Your task to perform on an android device: open app "Reddit" (install if not already installed) Image 0: 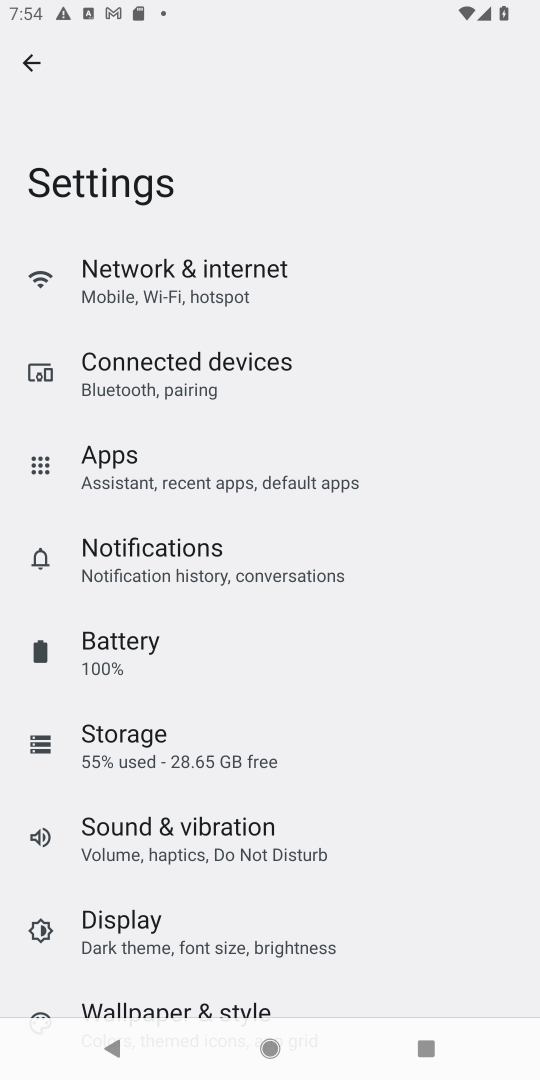
Step 0: press home button
Your task to perform on an android device: open app "Reddit" (install if not already installed) Image 1: 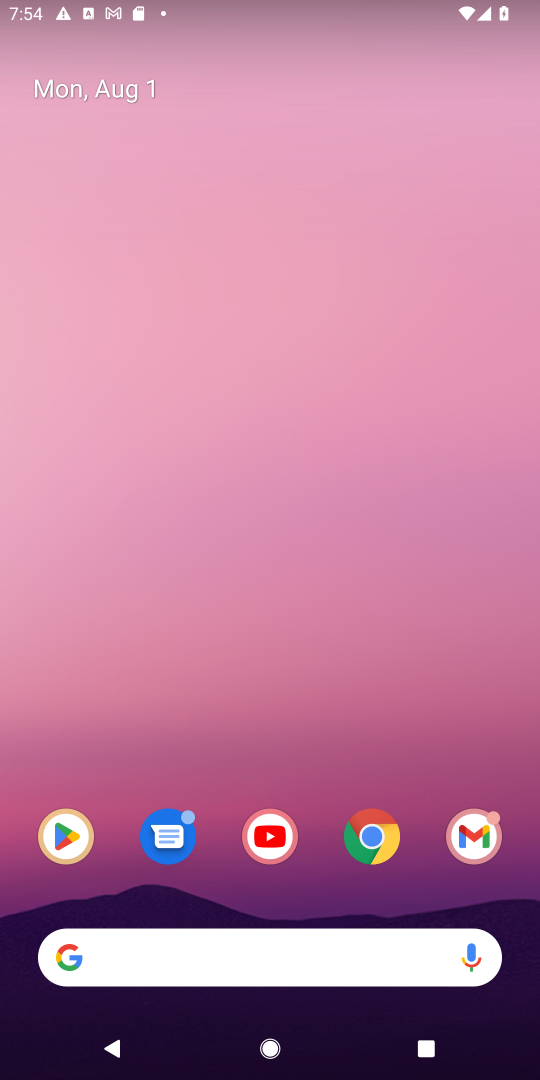
Step 1: click (66, 833)
Your task to perform on an android device: open app "Reddit" (install if not already installed) Image 2: 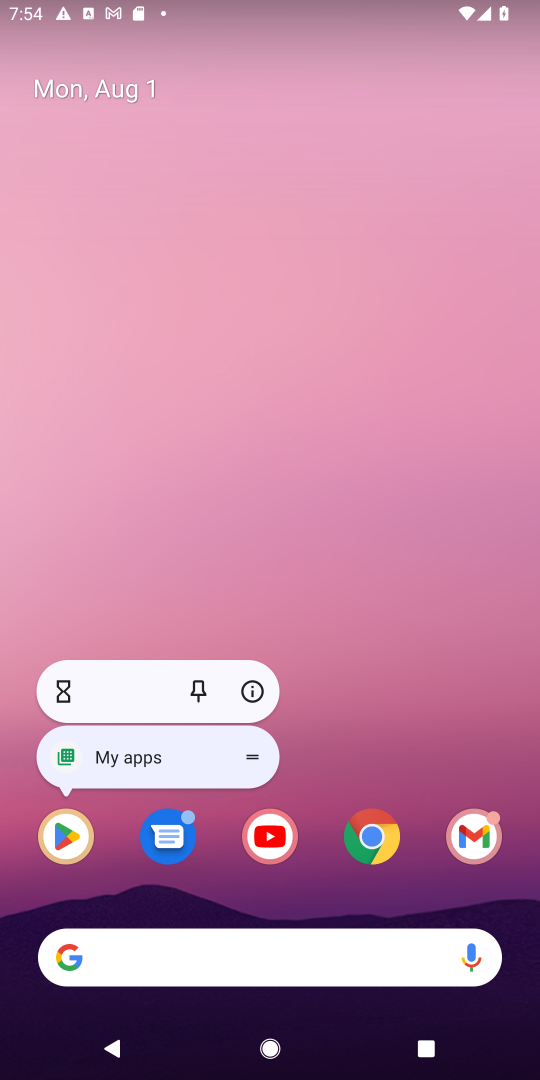
Step 2: click (66, 836)
Your task to perform on an android device: open app "Reddit" (install if not already installed) Image 3: 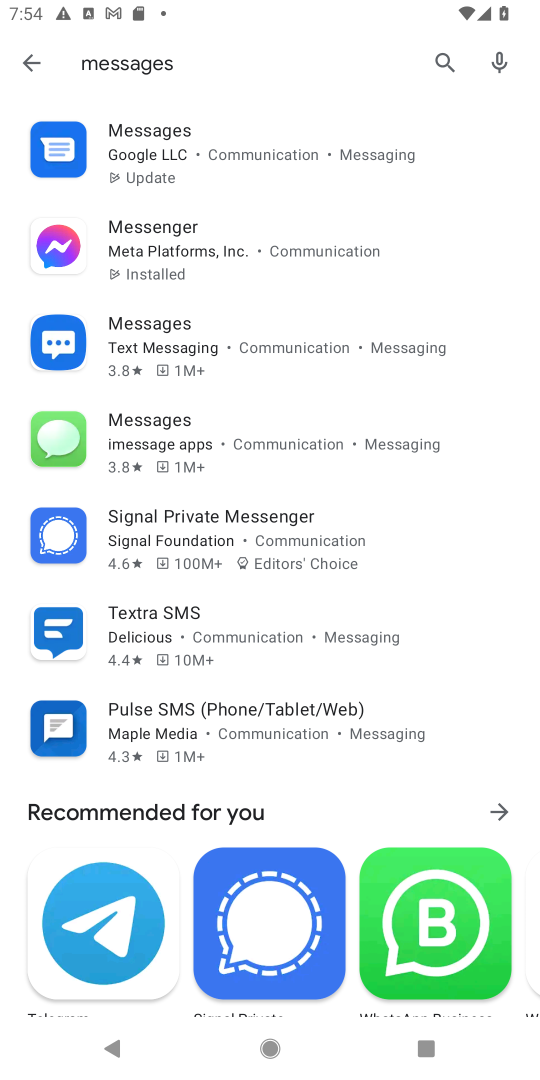
Step 3: click (435, 53)
Your task to perform on an android device: open app "Reddit" (install if not already installed) Image 4: 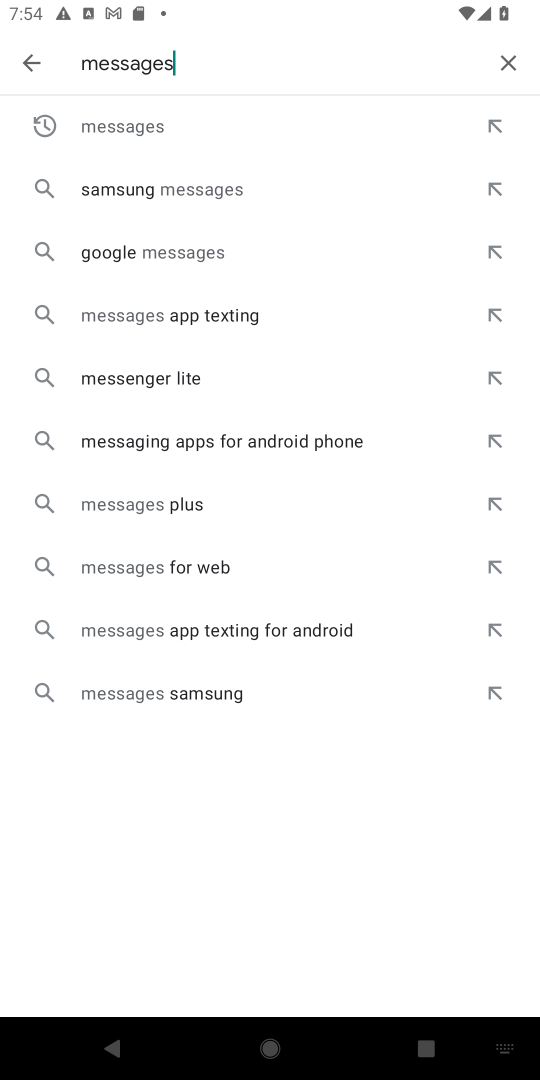
Step 4: click (506, 54)
Your task to perform on an android device: open app "Reddit" (install if not already installed) Image 5: 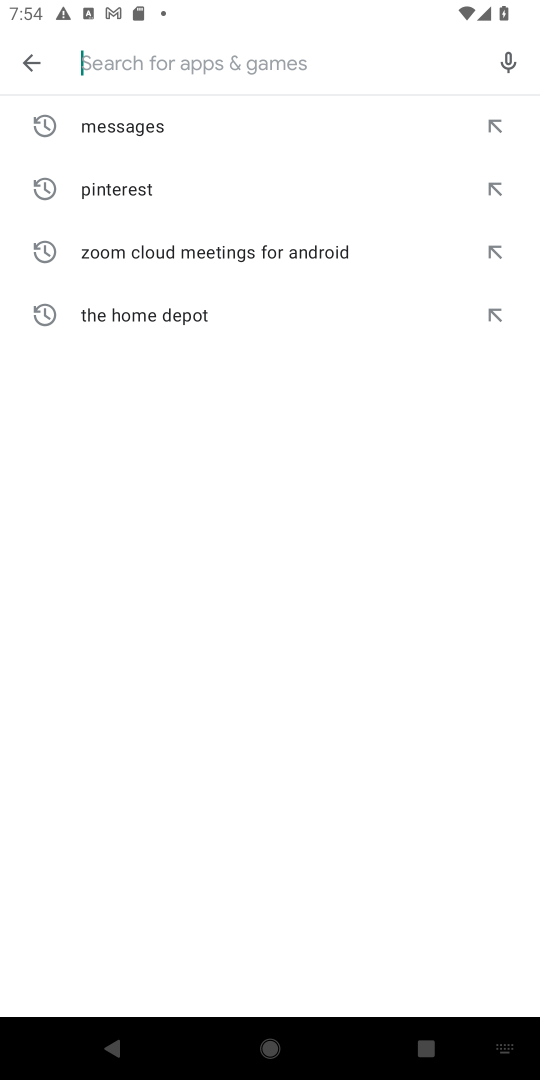
Step 5: type "Reddit"
Your task to perform on an android device: open app "Reddit" (install if not already installed) Image 6: 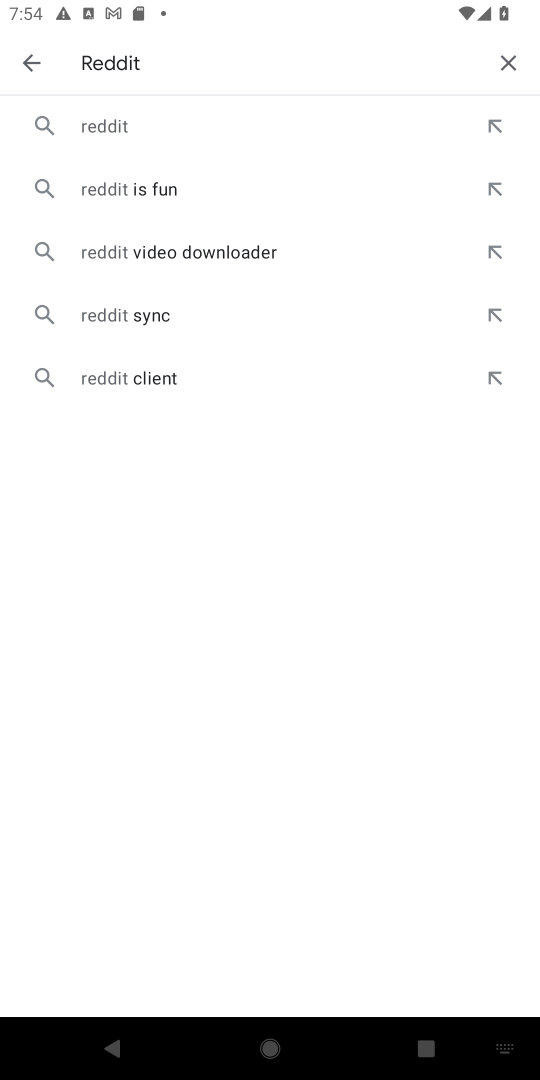
Step 6: click (118, 134)
Your task to perform on an android device: open app "Reddit" (install if not already installed) Image 7: 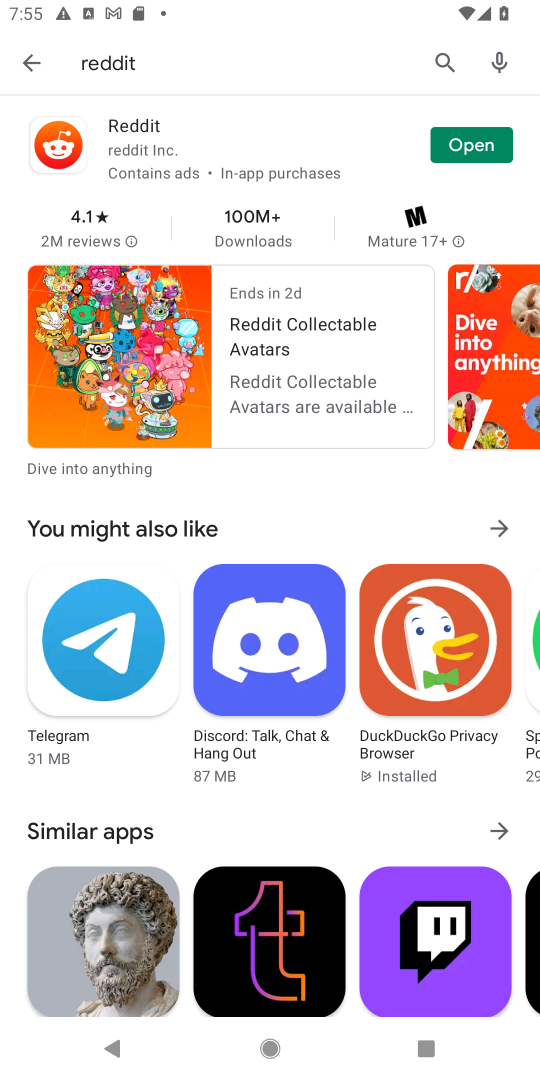
Step 7: click (501, 151)
Your task to perform on an android device: open app "Reddit" (install if not already installed) Image 8: 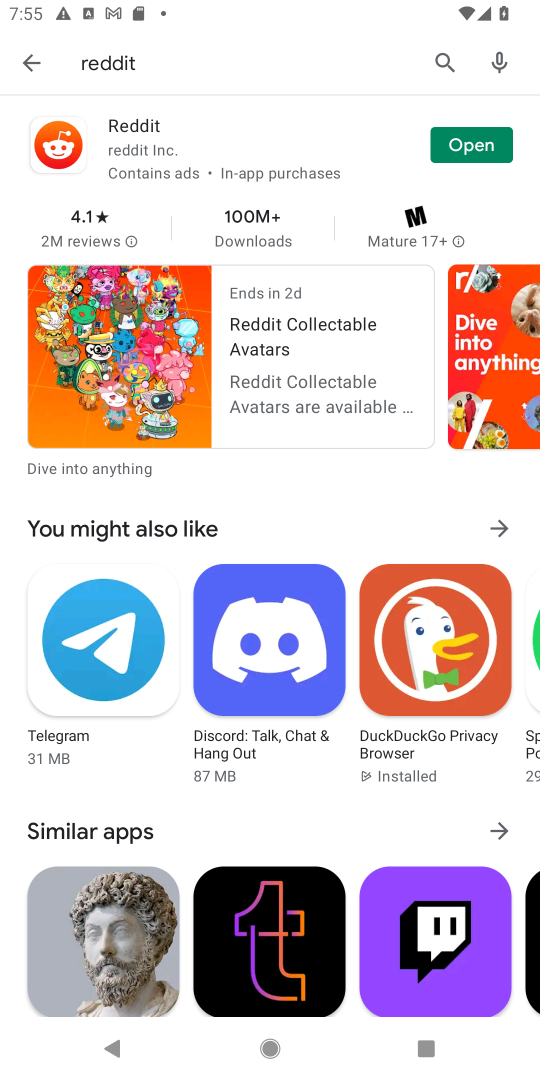
Step 8: task complete